Your task to perform on an android device: Go to network settings Image 0: 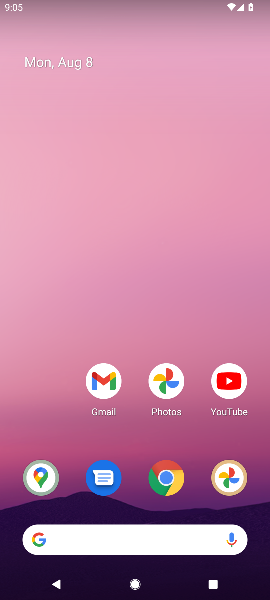
Step 0: press home button
Your task to perform on an android device: Go to network settings Image 1: 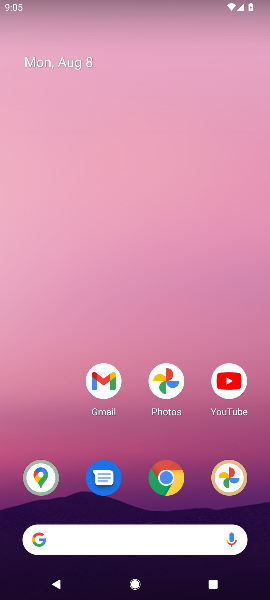
Step 1: drag from (136, 539) to (165, 68)
Your task to perform on an android device: Go to network settings Image 2: 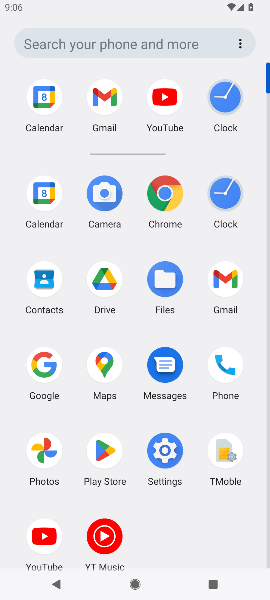
Step 2: click (168, 450)
Your task to perform on an android device: Go to network settings Image 3: 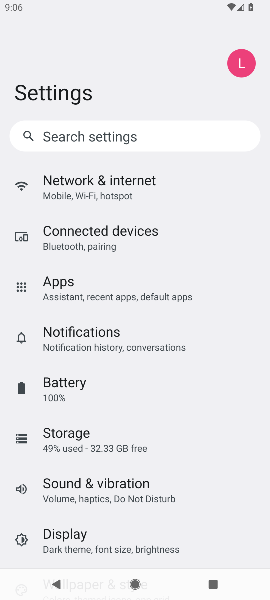
Step 3: click (118, 193)
Your task to perform on an android device: Go to network settings Image 4: 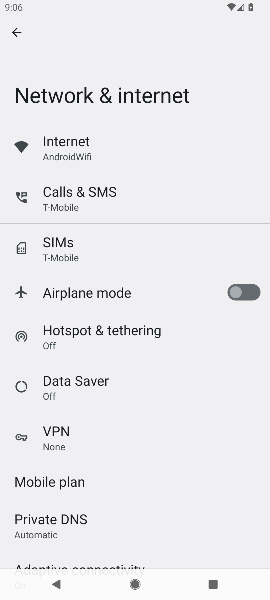
Step 4: task complete